Your task to perform on an android device: Go to Maps Image 0: 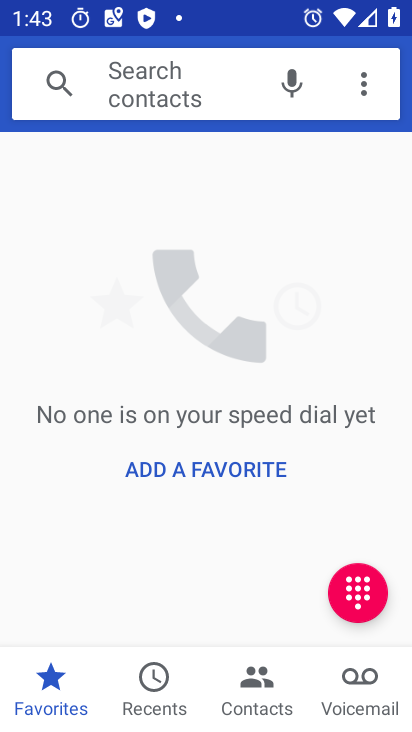
Step 0: press back button
Your task to perform on an android device: Go to Maps Image 1: 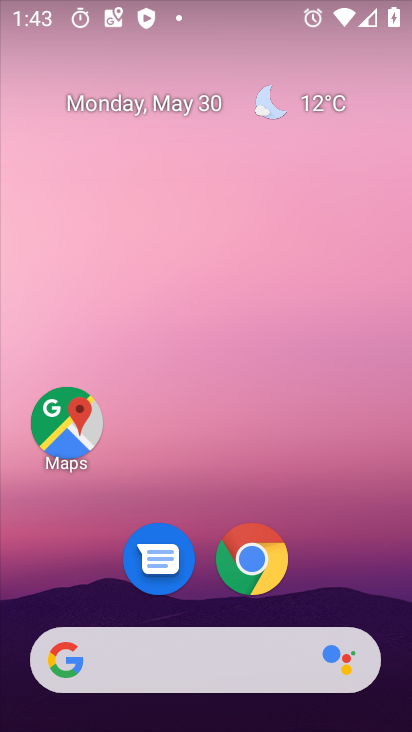
Step 1: click (57, 406)
Your task to perform on an android device: Go to Maps Image 2: 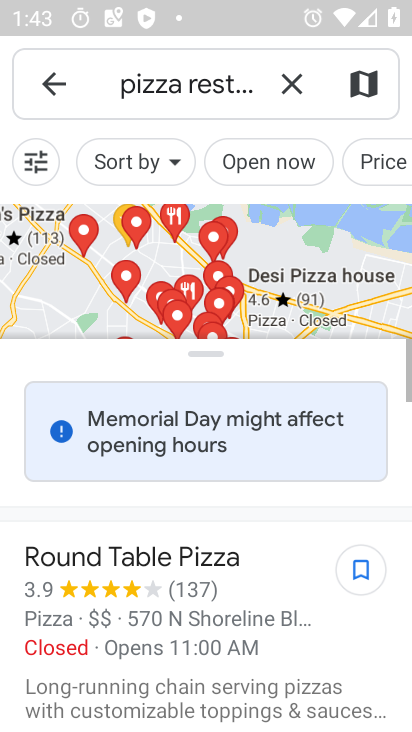
Step 2: task complete